Your task to perform on an android device: Open wifi settings Image 0: 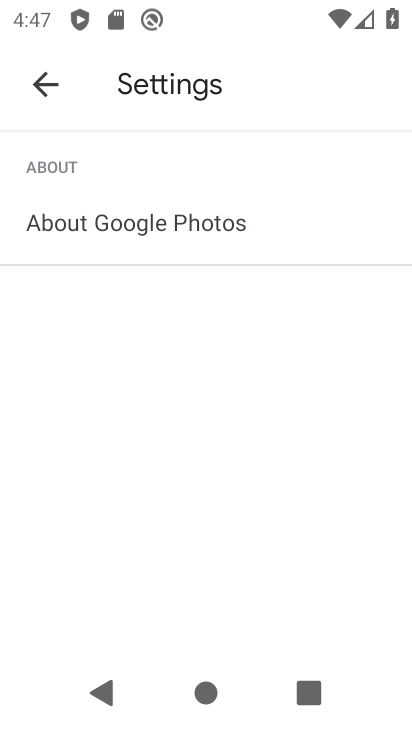
Step 0: drag from (216, 18) to (194, 572)
Your task to perform on an android device: Open wifi settings Image 1: 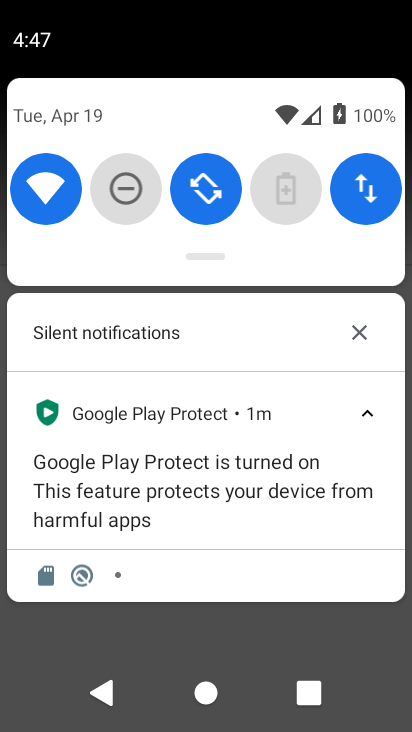
Step 1: click (61, 215)
Your task to perform on an android device: Open wifi settings Image 2: 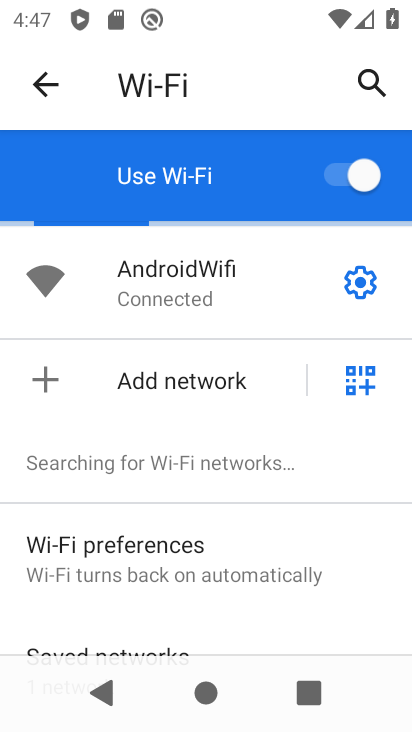
Step 2: task complete